Your task to perform on an android device: What is the news today? Image 0: 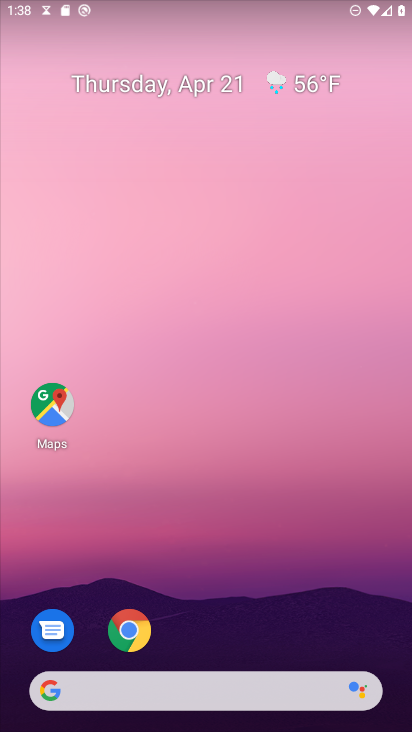
Step 0: drag from (27, 237) to (357, 184)
Your task to perform on an android device: What is the news today? Image 1: 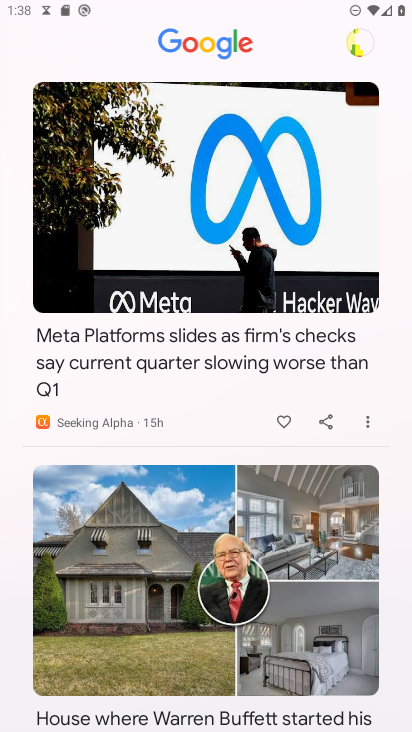
Step 1: task complete